Your task to perform on an android device: see creations saved in the google photos Image 0: 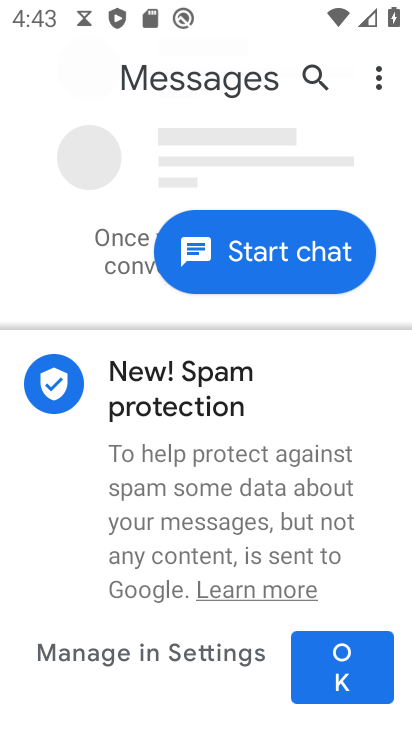
Step 0: press back button
Your task to perform on an android device: see creations saved in the google photos Image 1: 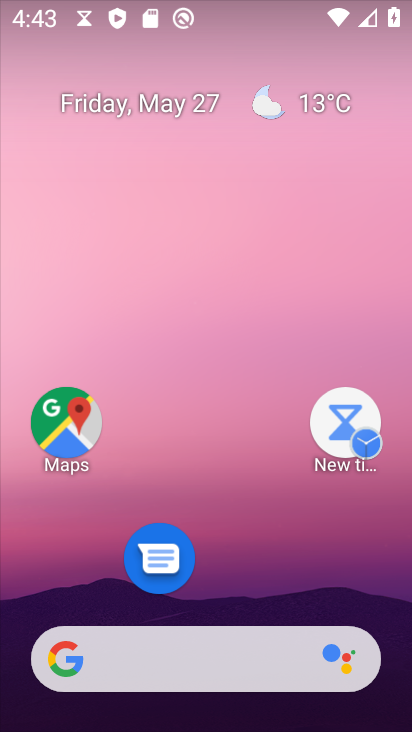
Step 1: drag from (278, 689) to (212, 374)
Your task to perform on an android device: see creations saved in the google photos Image 2: 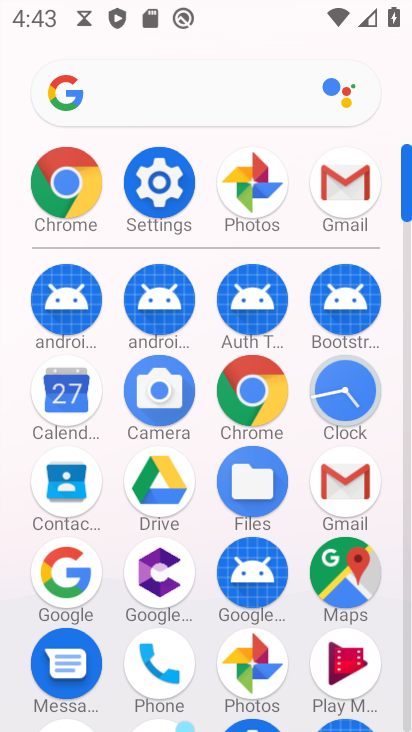
Step 2: click (251, 664)
Your task to perform on an android device: see creations saved in the google photos Image 3: 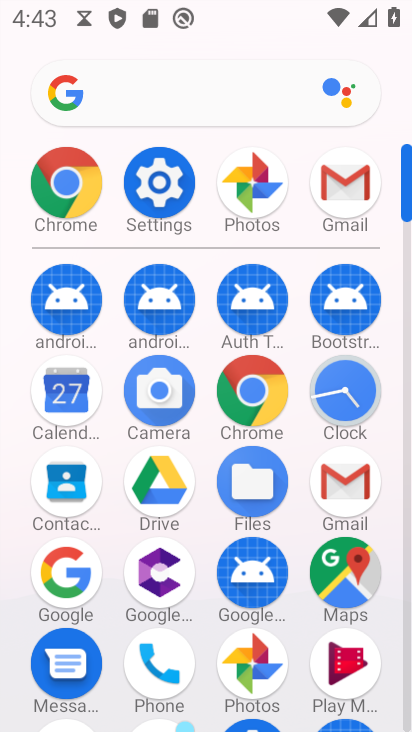
Step 3: click (252, 664)
Your task to perform on an android device: see creations saved in the google photos Image 4: 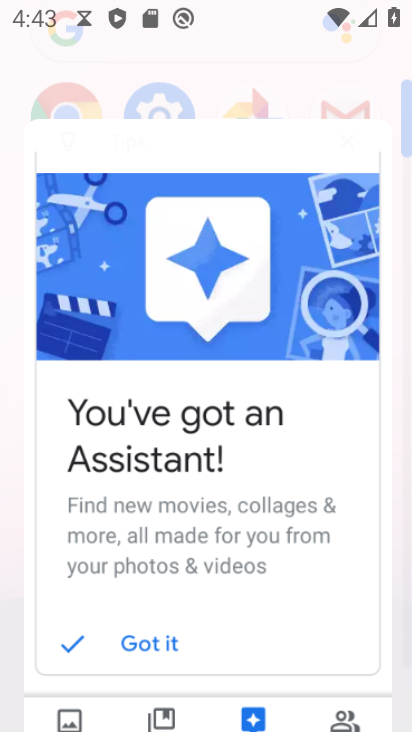
Step 4: click (253, 663)
Your task to perform on an android device: see creations saved in the google photos Image 5: 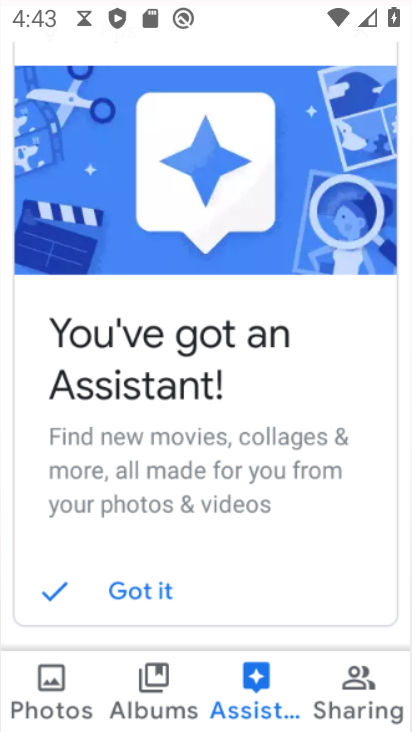
Step 5: click (252, 659)
Your task to perform on an android device: see creations saved in the google photos Image 6: 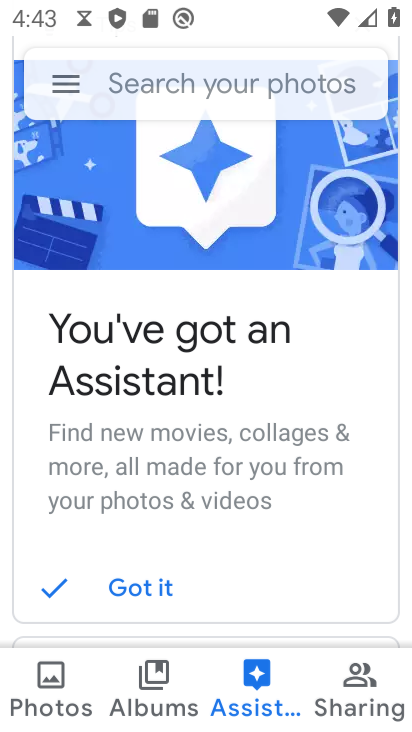
Step 6: click (251, 667)
Your task to perform on an android device: see creations saved in the google photos Image 7: 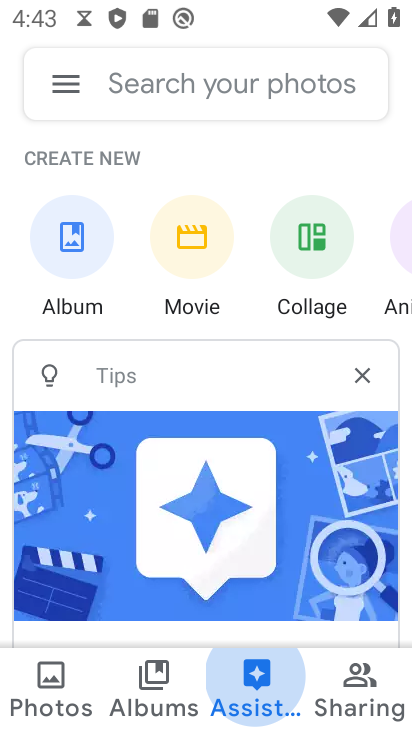
Step 7: click (250, 664)
Your task to perform on an android device: see creations saved in the google photos Image 8: 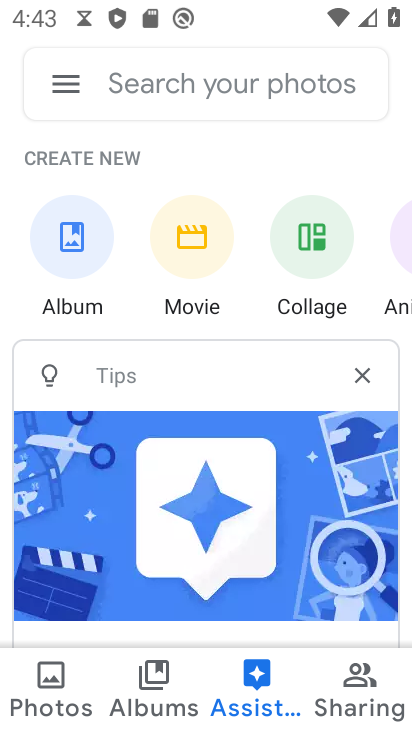
Step 8: drag from (266, 596) to (248, 231)
Your task to perform on an android device: see creations saved in the google photos Image 9: 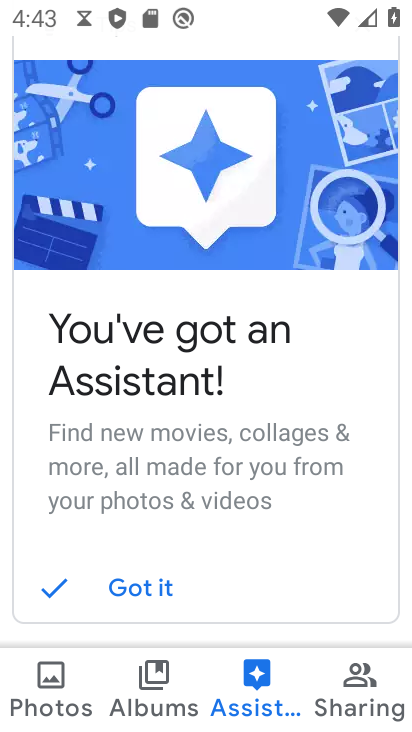
Step 9: drag from (242, 490) to (238, 304)
Your task to perform on an android device: see creations saved in the google photos Image 10: 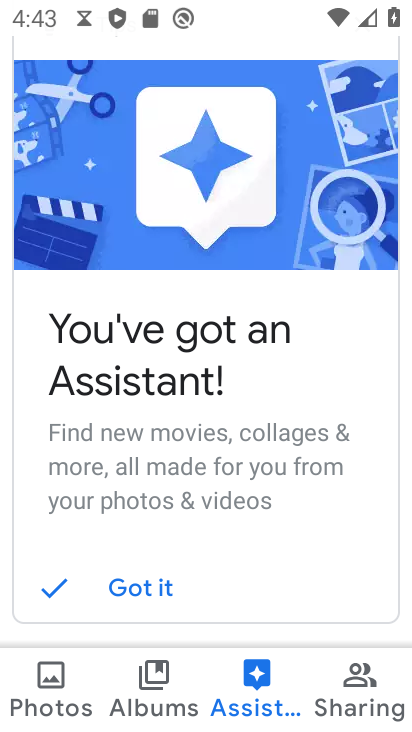
Step 10: drag from (190, 247) to (198, 115)
Your task to perform on an android device: see creations saved in the google photos Image 11: 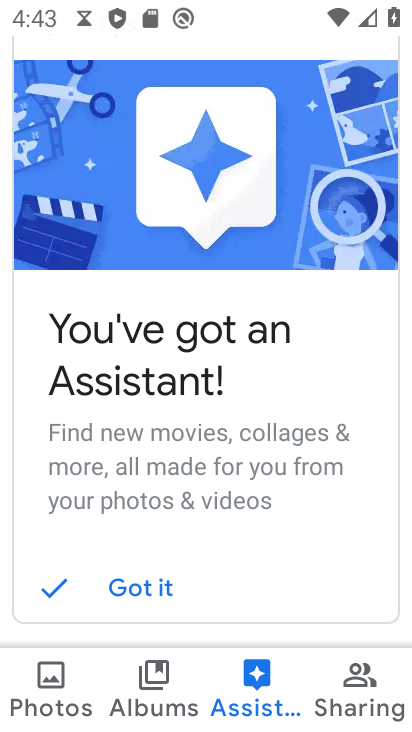
Step 11: drag from (192, 377) to (181, 181)
Your task to perform on an android device: see creations saved in the google photos Image 12: 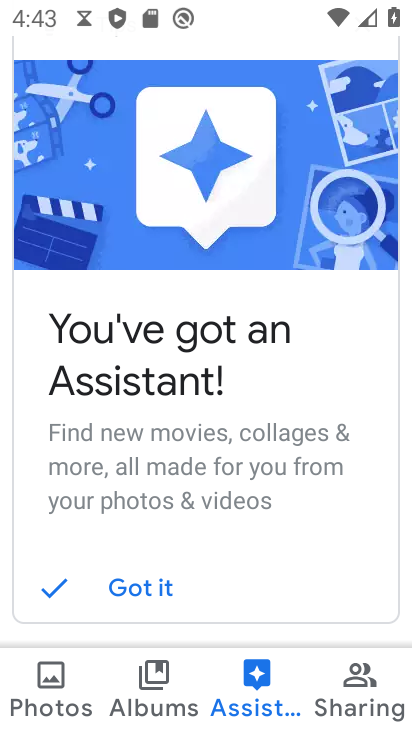
Step 12: drag from (192, 390) to (200, 240)
Your task to perform on an android device: see creations saved in the google photos Image 13: 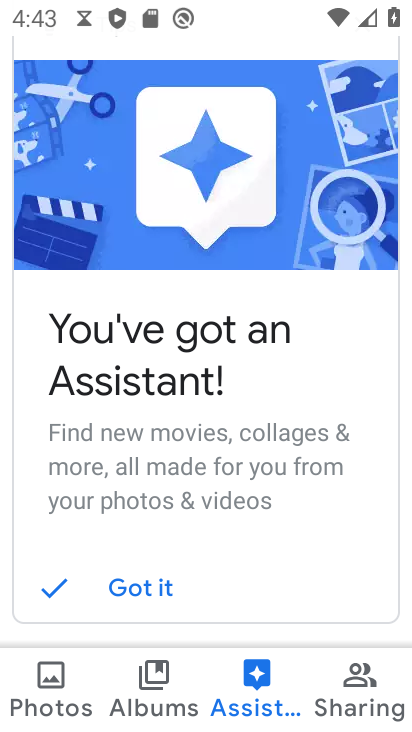
Step 13: click (234, 137)
Your task to perform on an android device: see creations saved in the google photos Image 14: 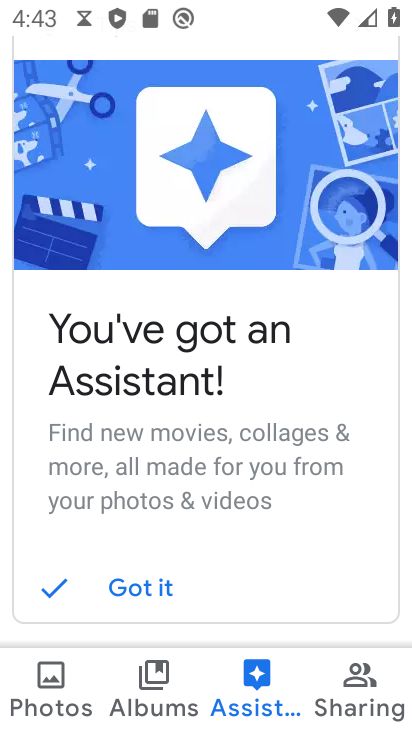
Step 14: drag from (170, 430) to (170, 163)
Your task to perform on an android device: see creations saved in the google photos Image 15: 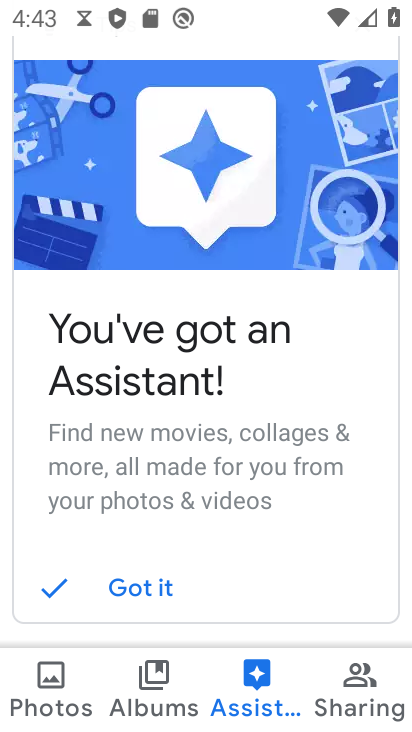
Step 15: click (178, 495)
Your task to perform on an android device: see creations saved in the google photos Image 16: 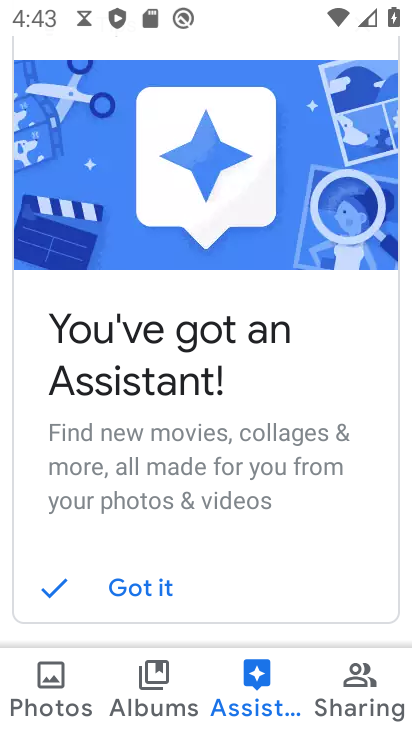
Step 16: drag from (108, 144) to (176, 601)
Your task to perform on an android device: see creations saved in the google photos Image 17: 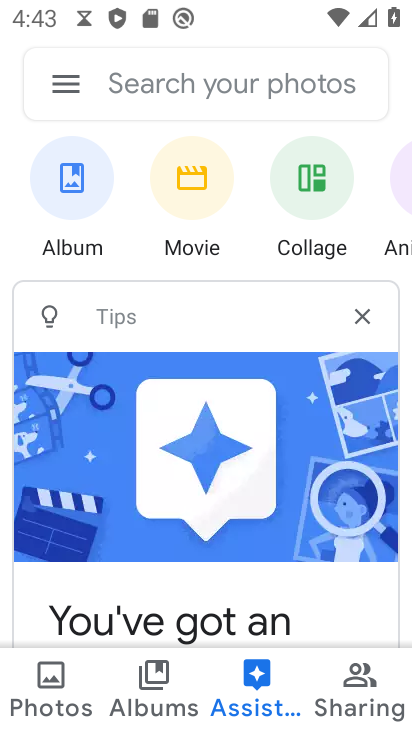
Step 17: click (155, 690)
Your task to perform on an android device: see creations saved in the google photos Image 18: 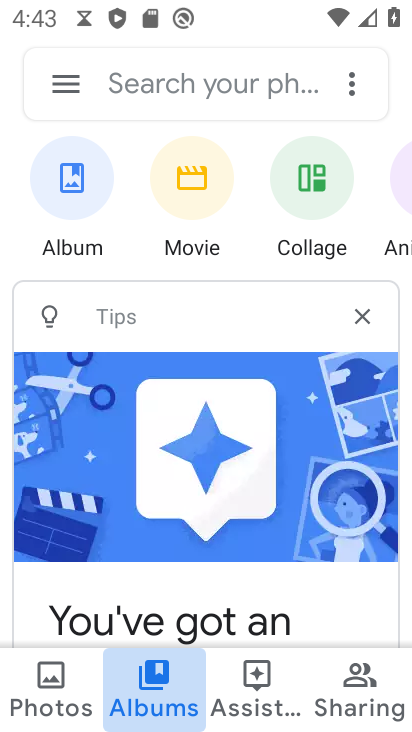
Step 18: click (59, 693)
Your task to perform on an android device: see creations saved in the google photos Image 19: 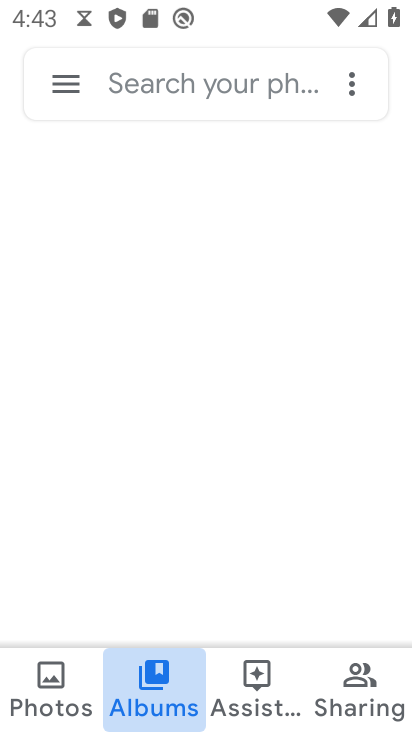
Step 19: click (59, 693)
Your task to perform on an android device: see creations saved in the google photos Image 20: 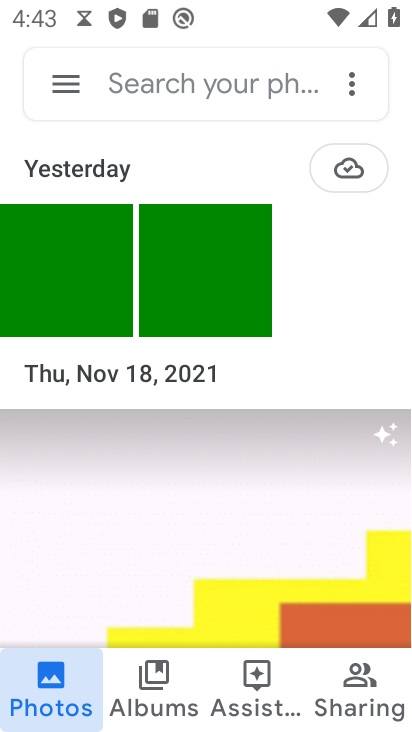
Step 20: click (59, 693)
Your task to perform on an android device: see creations saved in the google photos Image 21: 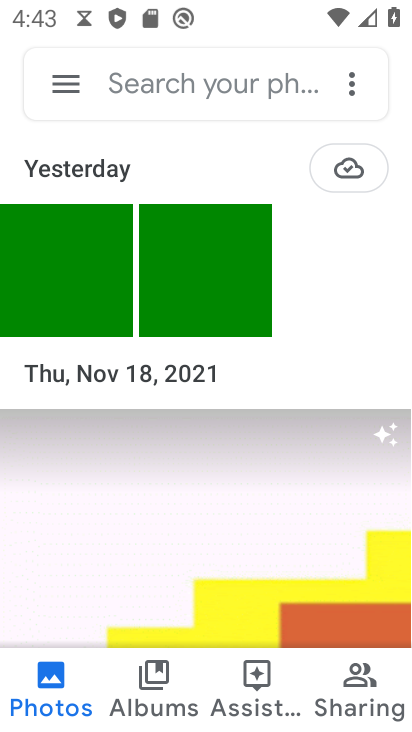
Step 21: click (58, 692)
Your task to perform on an android device: see creations saved in the google photos Image 22: 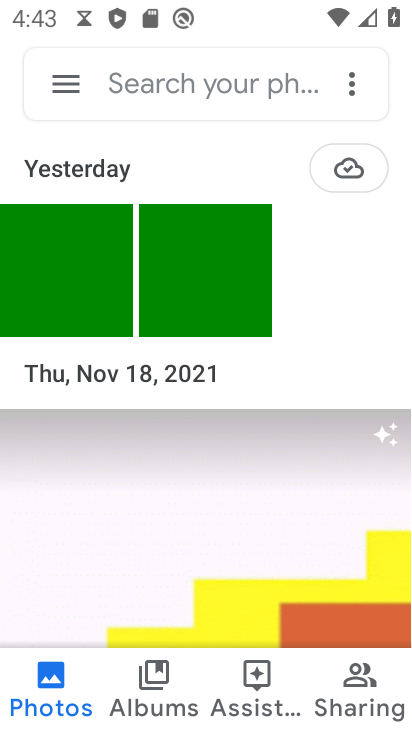
Step 22: task complete